Your task to perform on an android device: Empty the shopping cart on walmart. Add "usb-b" to the cart on walmart, then select checkout. Image 0: 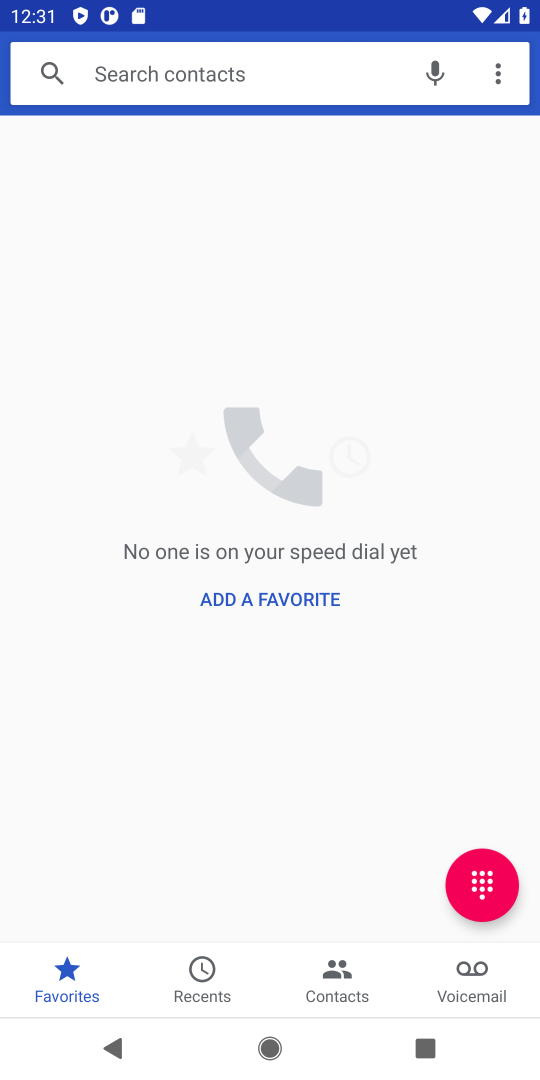
Step 0: press home button
Your task to perform on an android device: Empty the shopping cart on walmart. Add "usb-b" to the cart on walmart, then select checkout. Image 1: 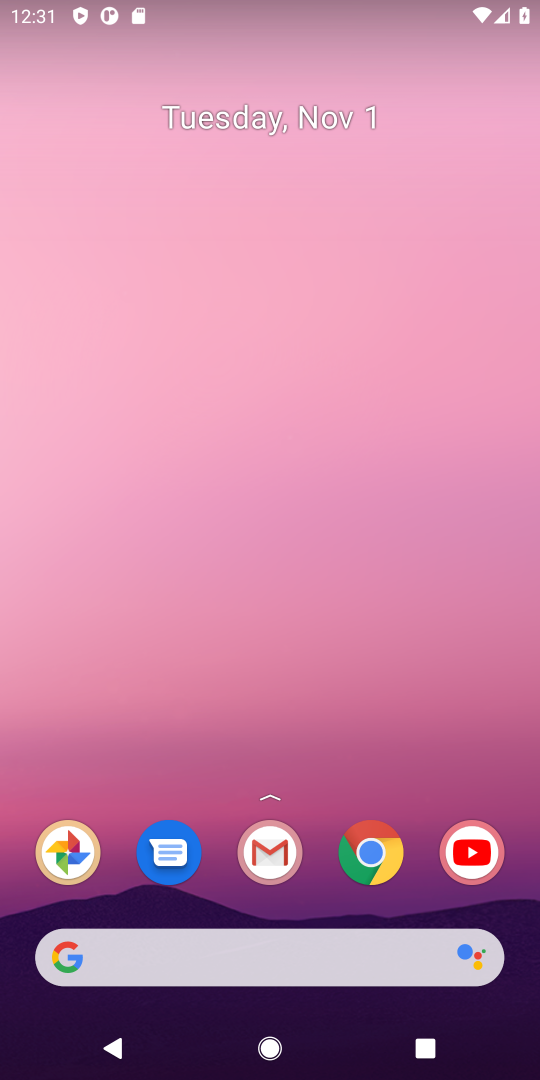
Step 1: click (377, 859)
Your task to perform on an android device: Empty the shopping cart on walmart. Add "usb-b" to the cart on walmart, then select checkout. Image 2: 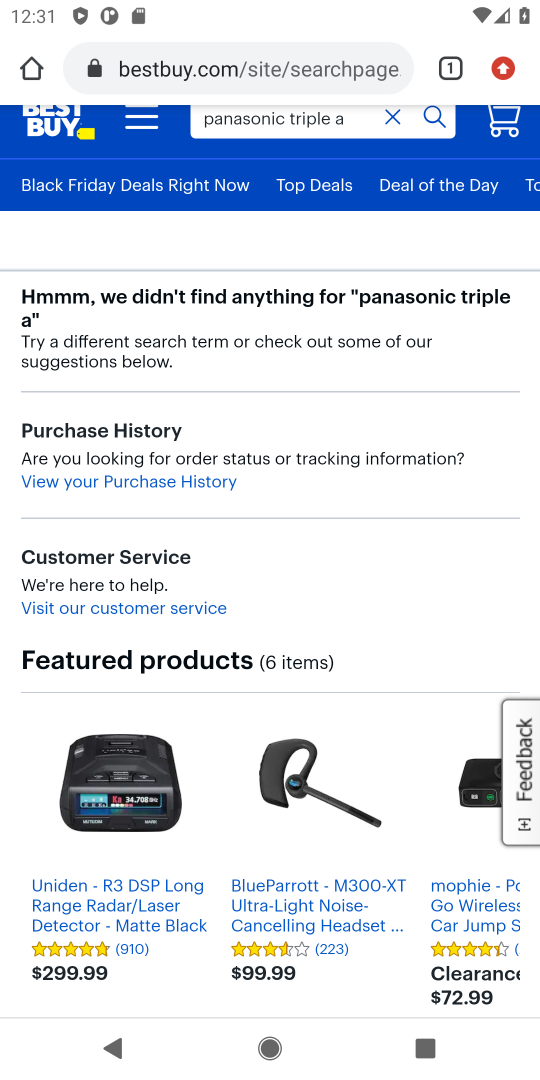
Step 2: click (318, 74)
Your task to perform on an android device: Empty the shopping cart on walmart. Add "usb-b" to the cart on walmart, then select checkout. Image 3: 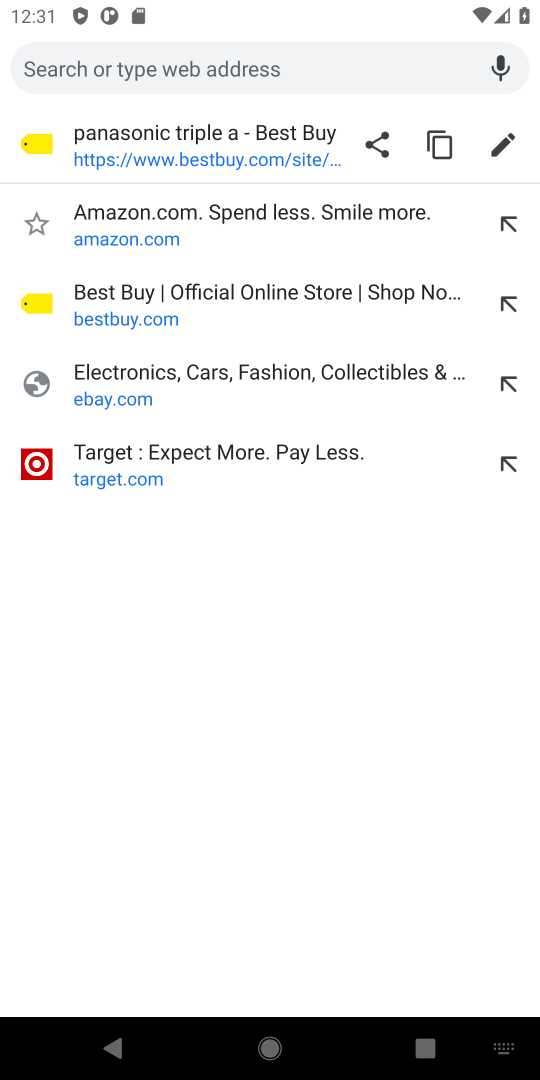
Step 3: type "walmart"
Your task to perform on an android device: Empty the shopping cart on walmart. Add "usb-b" to the cart on walmart, then select checkout. Image 4: 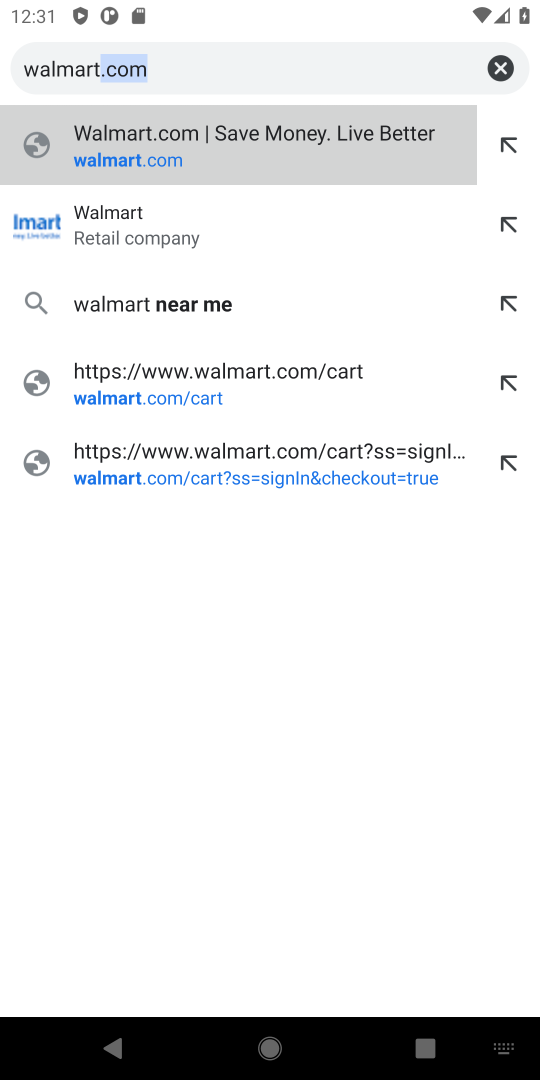
Step 4: type ""
Your task to perform on an android device: Empty the shopping cart on walmart. Add "usb-b" to the cart on walmart, then select checkout. Image 5: 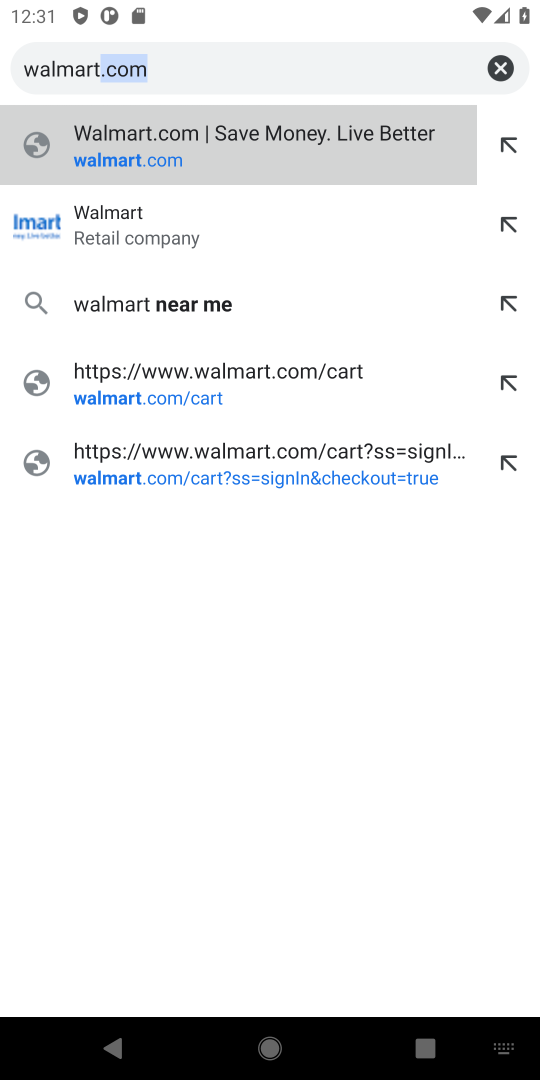
Step 5: press enter
Your task to perform on an android device: Empty the shopping cart on walmart. Add "usb-b" to the cart on walmart, then select checkout. Image 6: 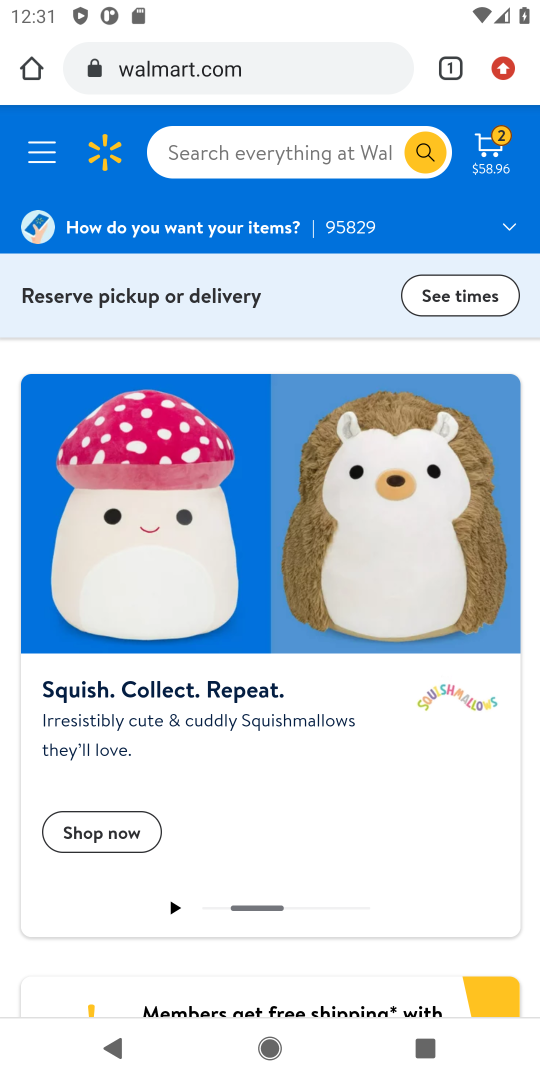
Step 6: click (503, 156)
Your task to perform on an android device: Empty the shopping cart on walmart. Add "usb-b" to the cart on walmart, then select checkout. Image 7: 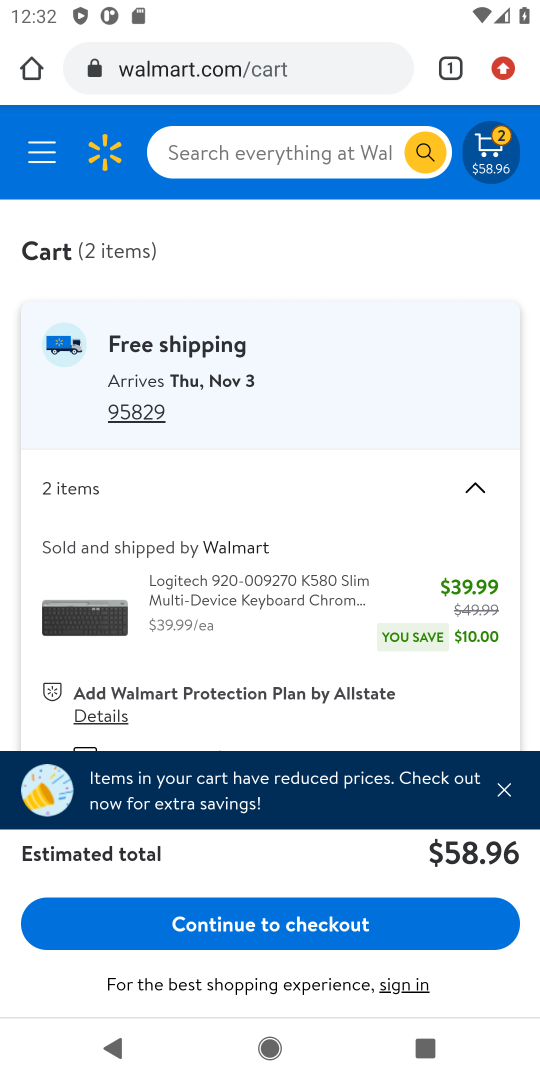
Step 7: click (271, 175)
Your task to perform on an android device: Empty the shopping cart on walmart. Add "usb-b" to the cart on walmart, then select checkout. Image 8: 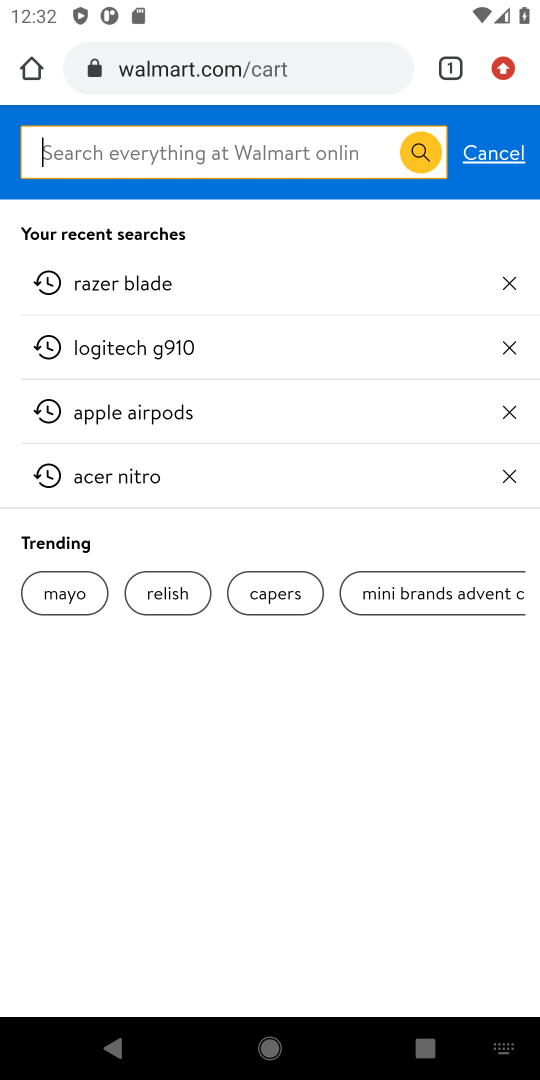
Step 8: click (489, 156)
Your task to perform on an android device: Empty the shopping cart on walmart. Add "usb-b" to the cart on walmart, then select checkout. Image 9: 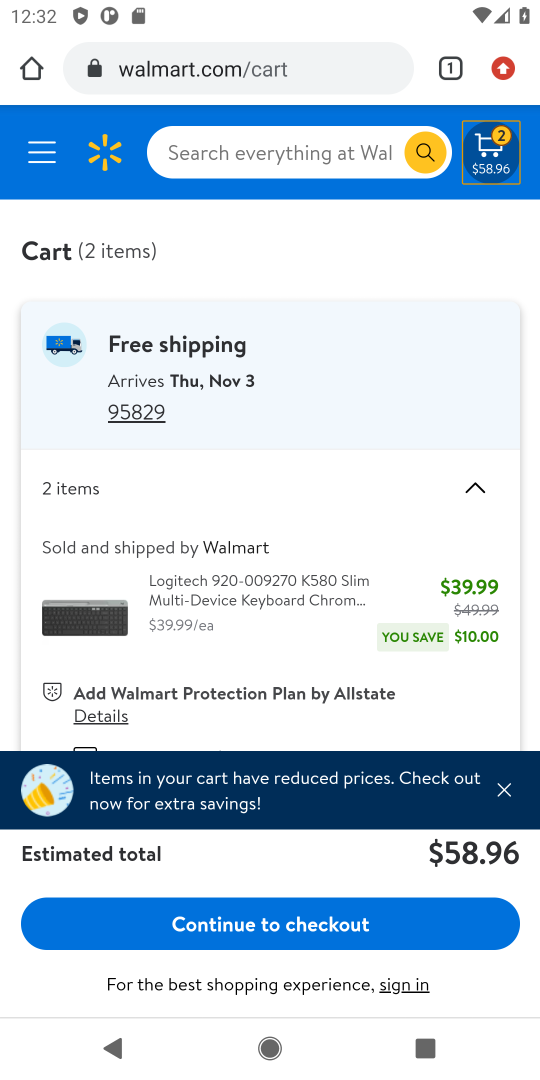
Step 9: click (492, 160)
Your task to perform on an android device: Empty the shopping cart on walmart. Add "usb-b" to the cart on walmart, then select checkout. Image 10: 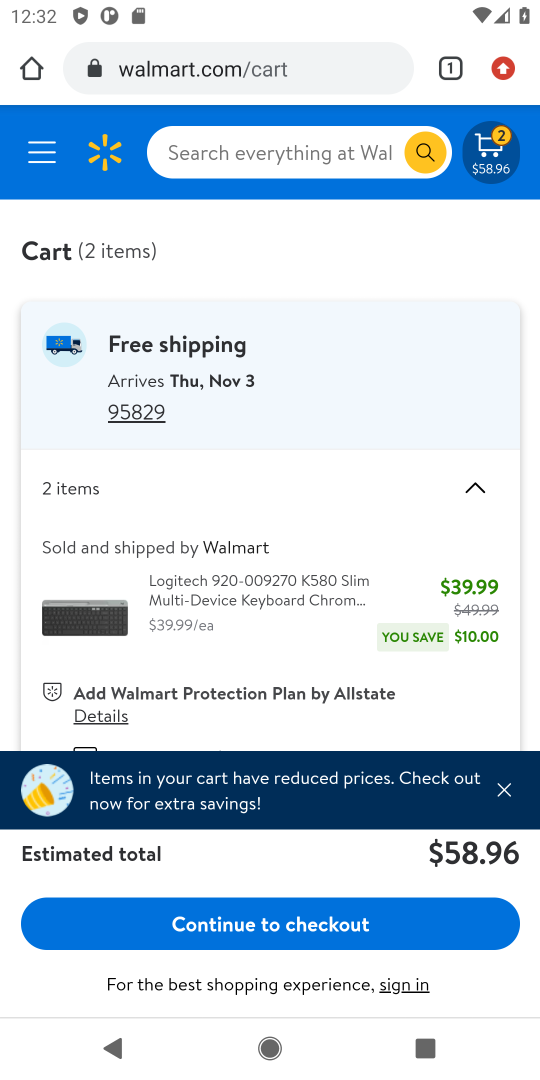
Step 10: click (494, 150)
Your task to perform on an android device: Empty the shopping cart on walmart. Add "usb-b" to the cart on walmart, then select checkout. Image 11: 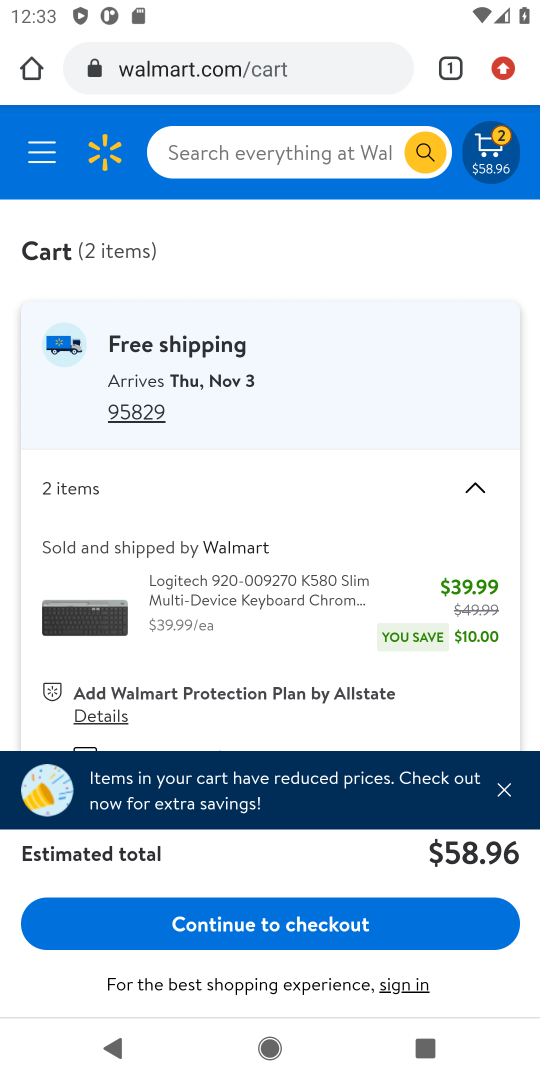
Step 11: drag from (370, 627) to (353, 318)
Your task to perform on an android device: Empty the shopping cart on walmart. Add "usb-b" to the cart on walmart, then select checkout. Image 12: 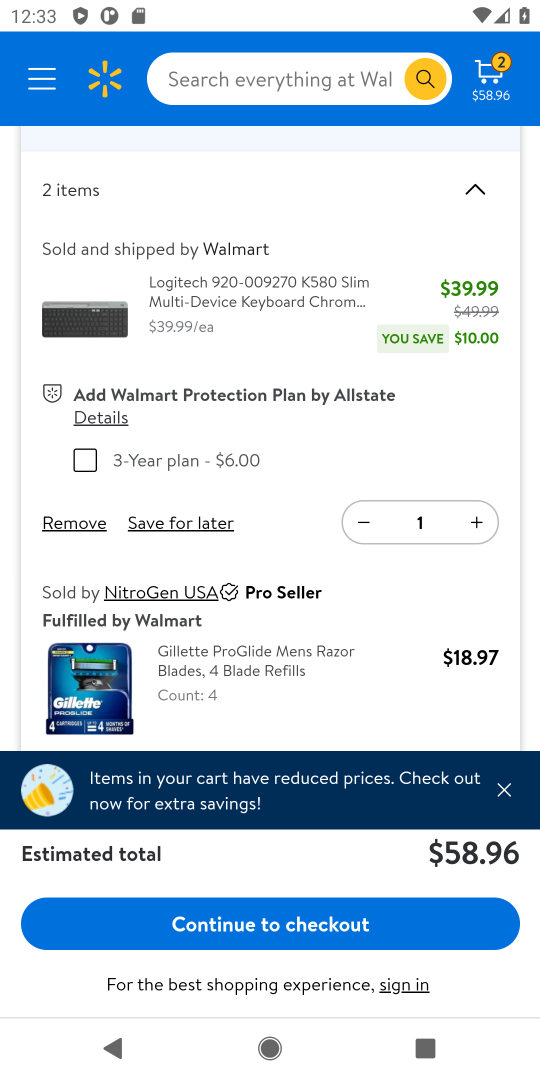
Step 12: click (510, 723)
Your task to perform on an android device: Empty the shopping cart on walmart. Add "usb-b" to the cart on walmart, then select checkout. Image 13: 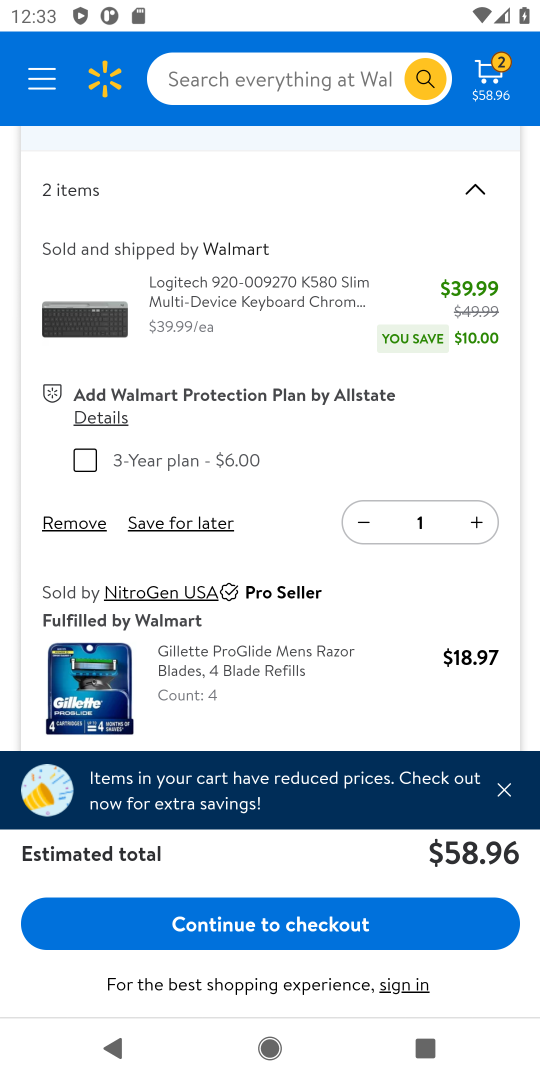
Step 13: click (58, 531)
Your task to perform on an android device: Empty the shopping cart on walmart. Add "usb-b" to the cart on walmart, then select checkout. Image 14: 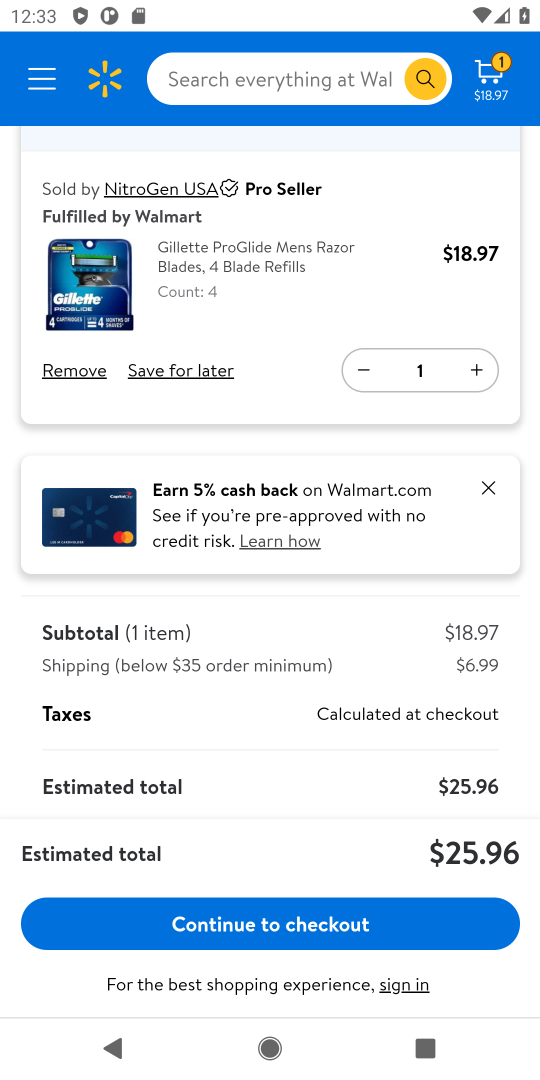
Step 14: click (71, 369)
Your task to perform on an android device: Empty the shopping cart on walmart. Add "usb-b" to the cart on walmart, then select checkout. Image 15: 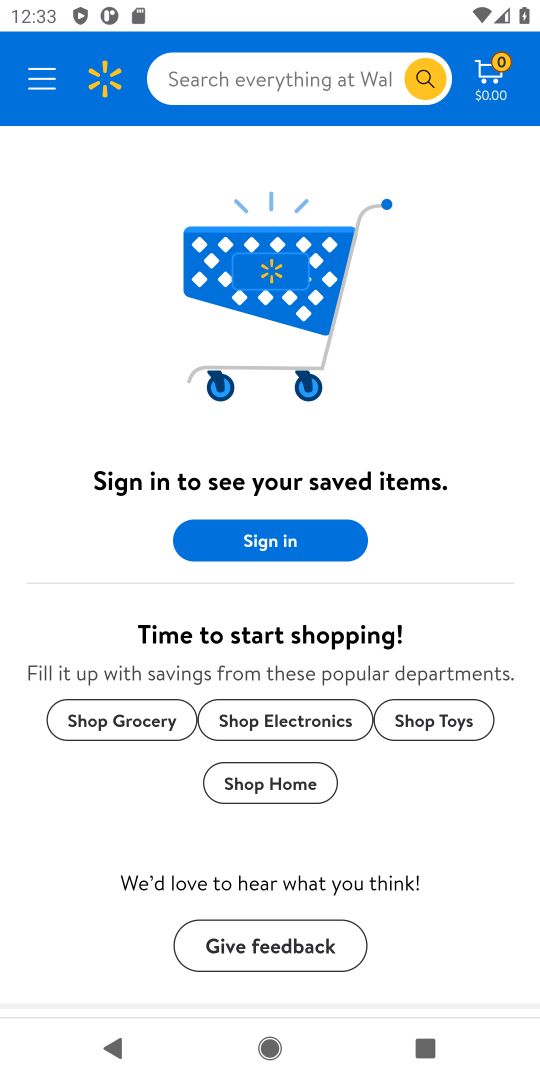
Step 15: click (287, 81)
Your task to perform on an android device: Empty the shopping cart on walmart. Add "usb-b" to the cart on walmart, then select checkout. Image 16: 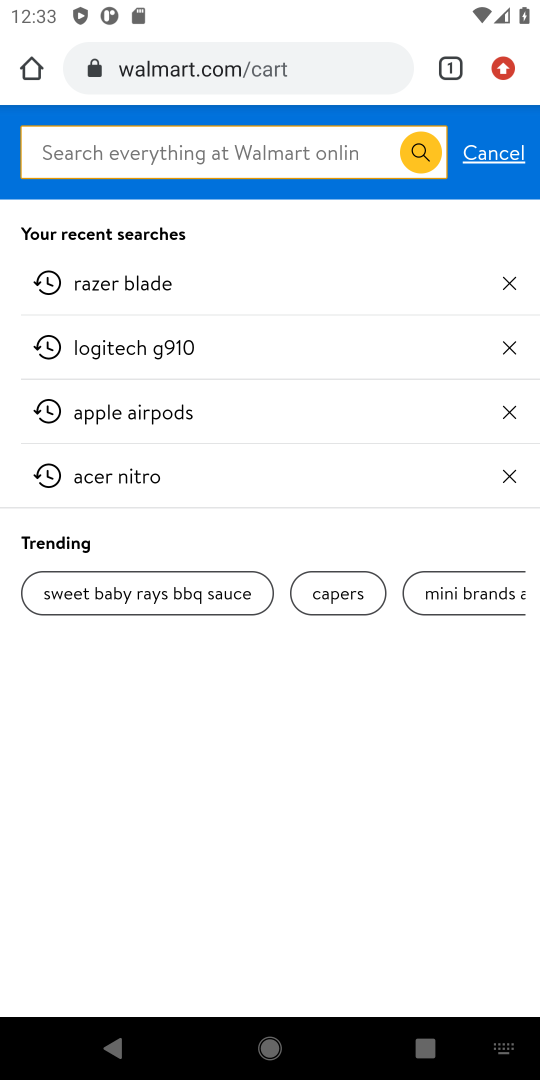
Step 16: type "usb-b"
Your task to perform on an android device: Empty the shopping cart on walmart. Add "usb-b" to the cart on walmart, then select checkout. Image 17: 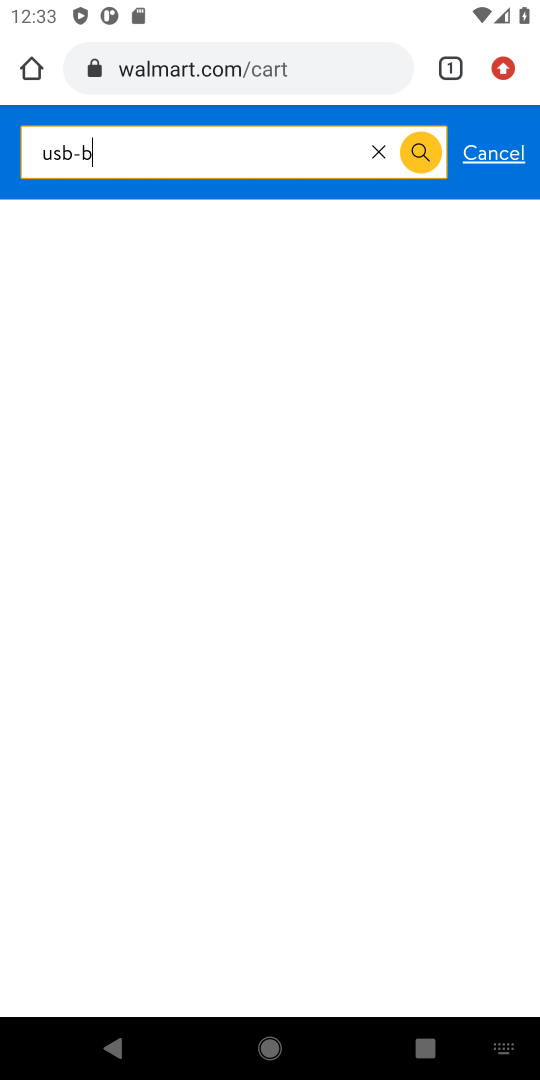
Step 17: type ""
Your task to perform on an android device: Empty the shopping cart on walmart. Add "usb-b" to the cart on walmart, then select checkout. Image 18: 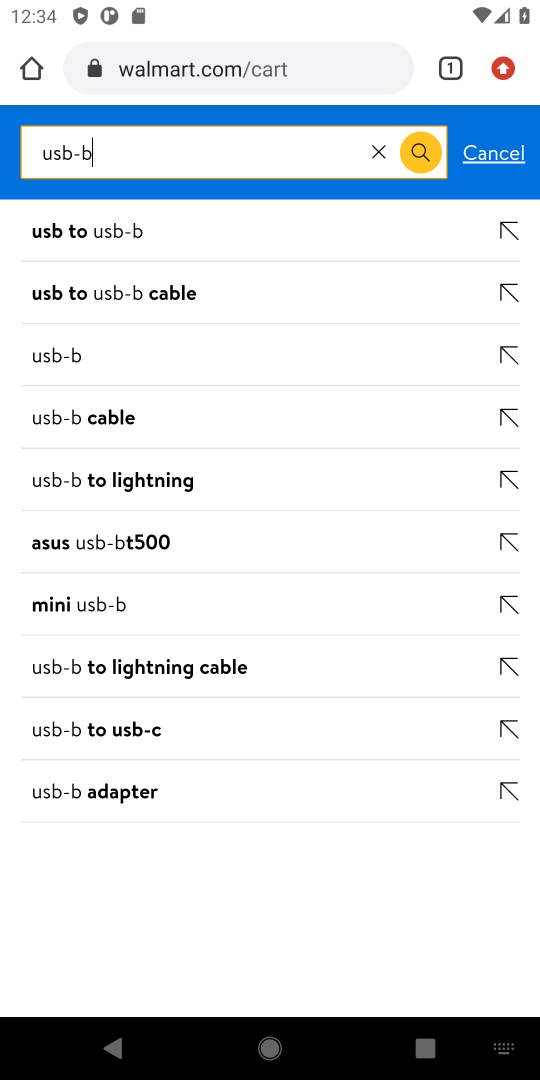
Step 18: press enter
Your task to perform on an android device: Empty the shopping cart on walmart. Add "usb-b" to the cart on walmart, then select checkout. Image 19: 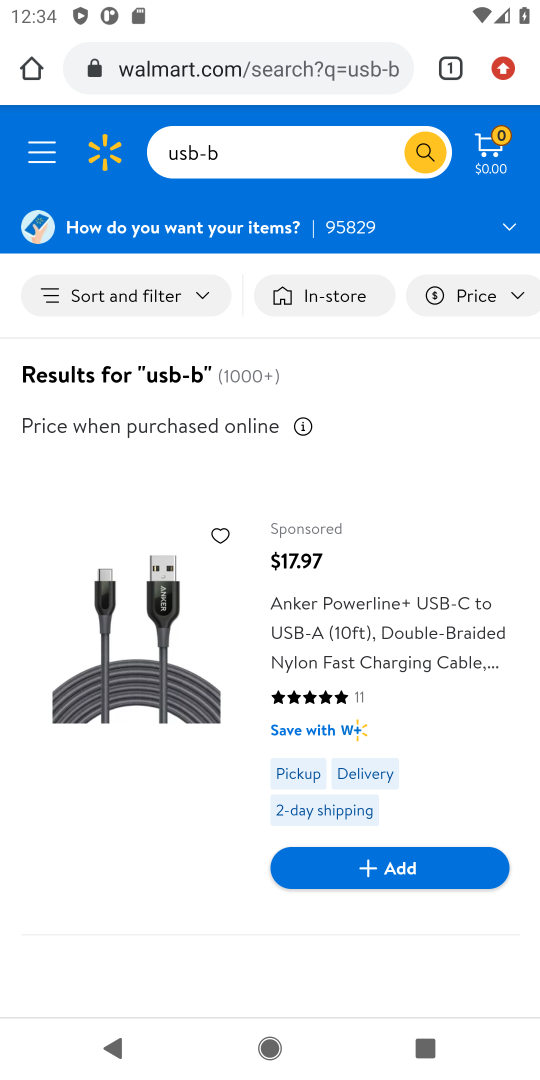
Step 19: task complete